Your task to perform on an android device: move a message to another label in the gmail app Image 0: 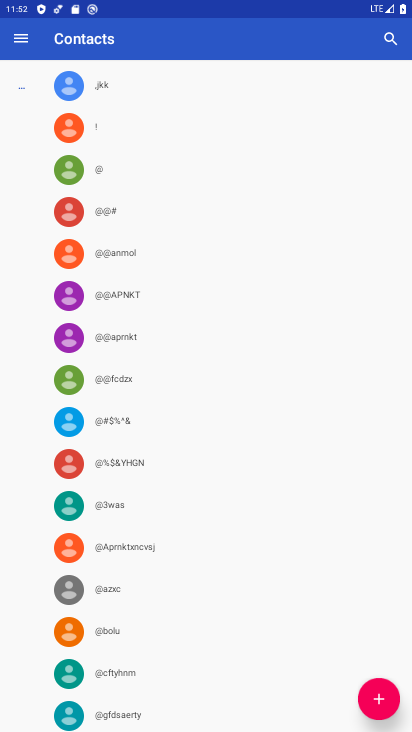
Step 0: press home button
Your task to perform on an android device: move a message to another label in the gmail app Image 1: 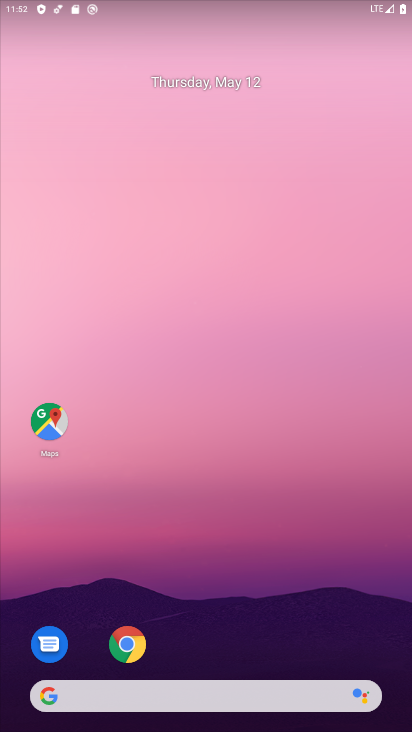
Step 1: drag from (342, 621) to (317, 105)
Your task to perform on an android device: move a message to another label in the gmail app Image 2: 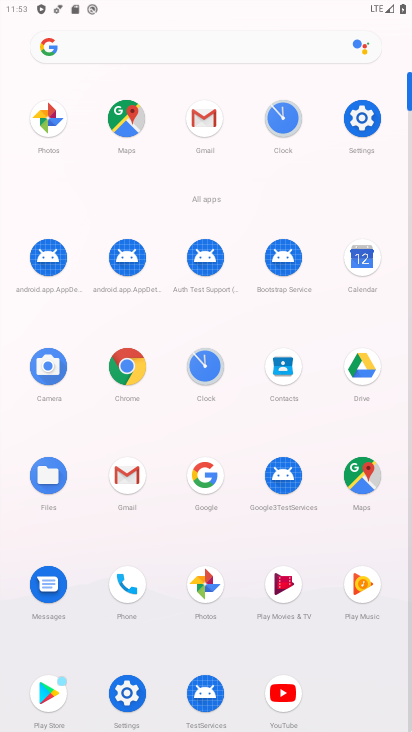
Step 2: click (137, 480)
Your task to perform on an android device: move a message to another label in the gmail app Image 3: 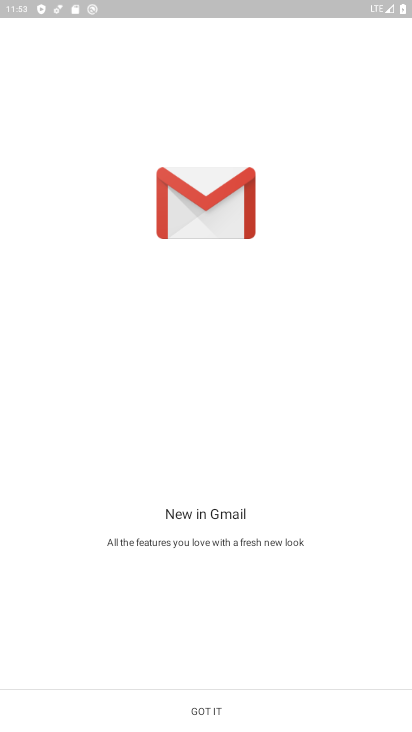
Step 3: click (192, 697)
Your task to perform on an android device: move a message to another label in the gmail app Image 4: 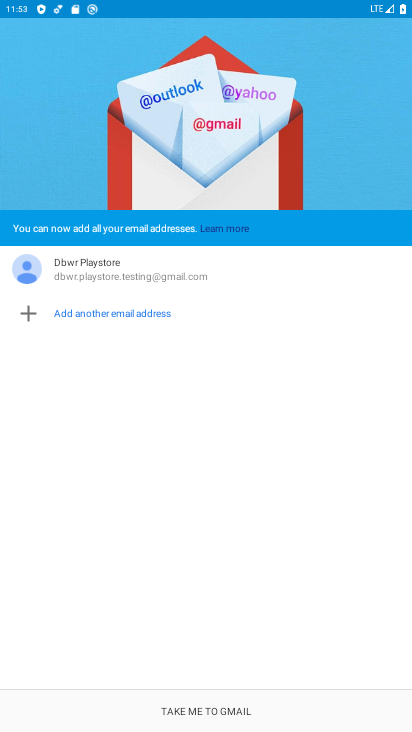
Step 4: click (192, 697)
Your task to perform on an android device: move a message to another label in the gmail app Image 5: 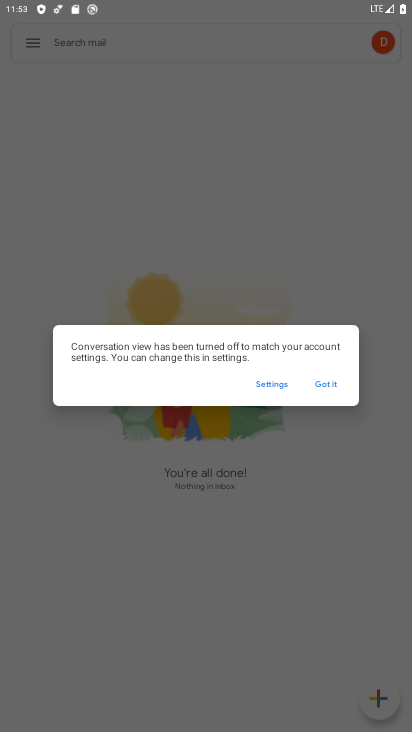
Step 5: task complete